Your task to perform on an android device: Open sound settings Image 0: 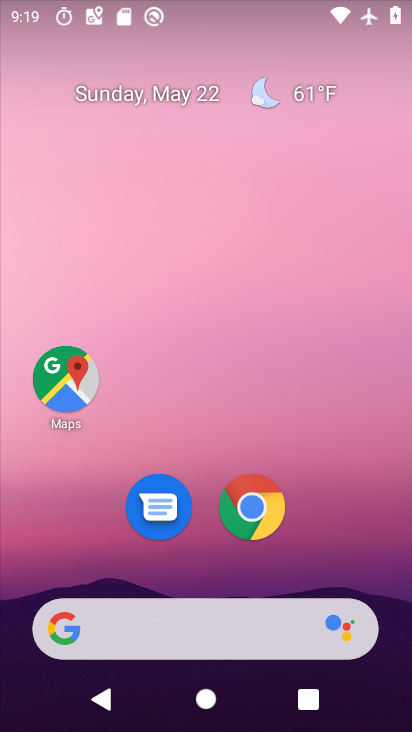
Step 0: drag from (198, 597) to (208, 143)
Your task to perform on an android device: Open sound settings Image 1: 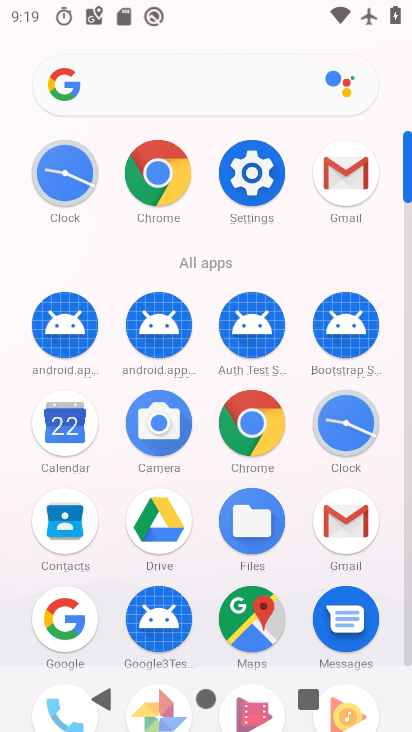
Step 1: click (244, 150)
Your task to perform on an android device: Open sound settings Image 2: 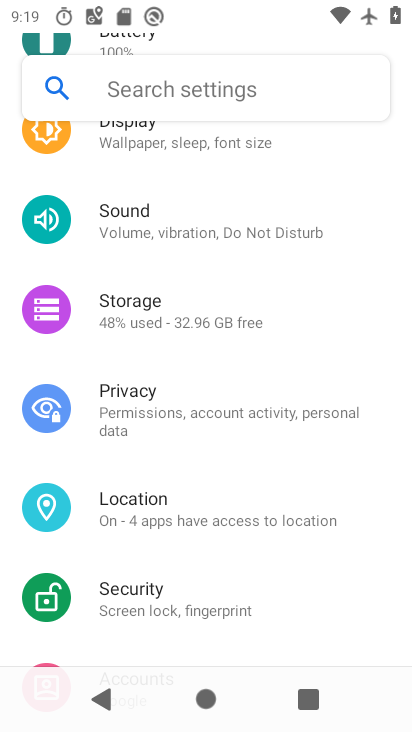
Step 2: click (167, 212)
Your task to perform on an android device: Open sound settings Image 3: 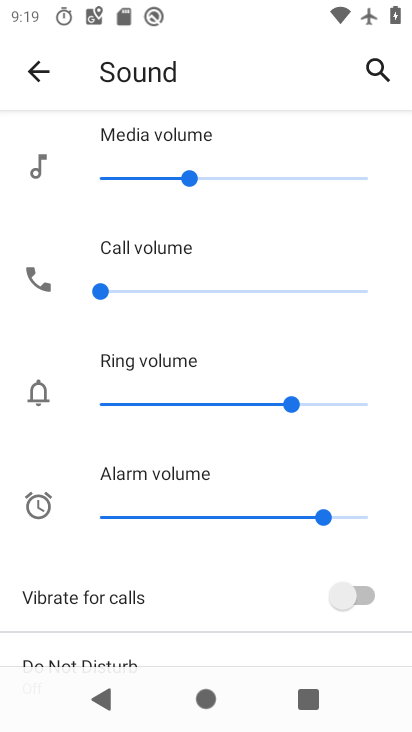
Step 3: task complete